Your task to perform on an android device: Go to Google maps Image 0: 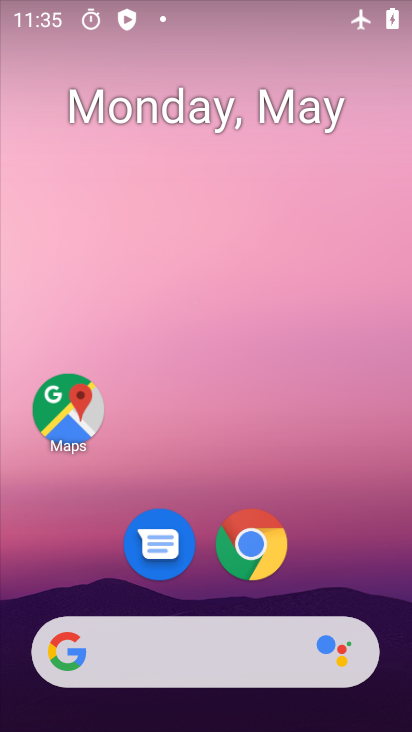
Step 0: drag from (377, 513) to (390, 141)
Your task to perform on an android device: Go to Google maps Image 1: 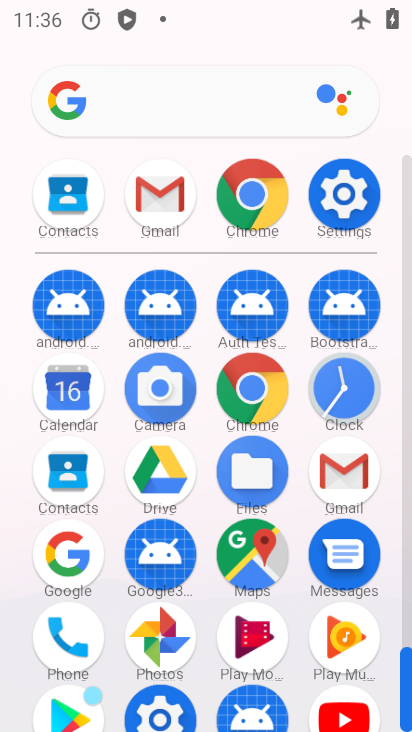
Step 1: click (262, 567)
Your task to perform on an android device: Go to Google maps Image 2: 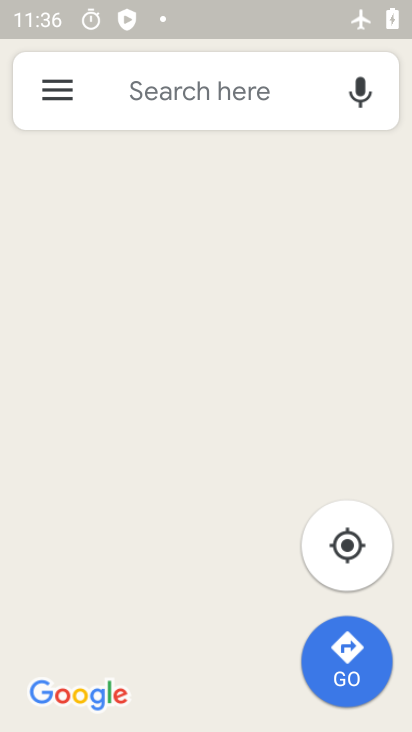
Step 2: task complete